Your task to perform on an android device: Open Google Image 0: 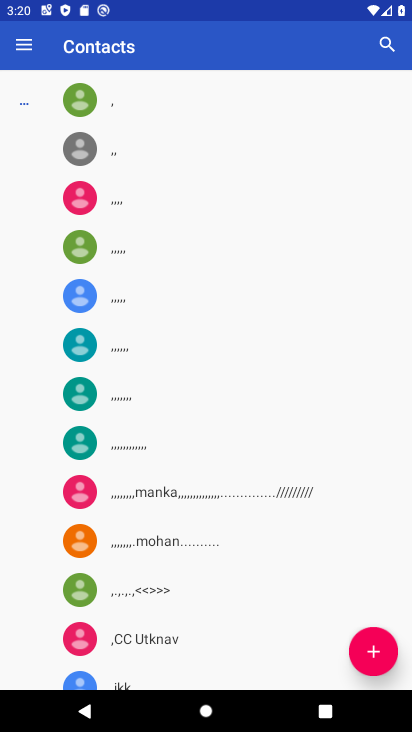
Step 0: press home button
Your task to perform on an android device: Open Google Image 1: 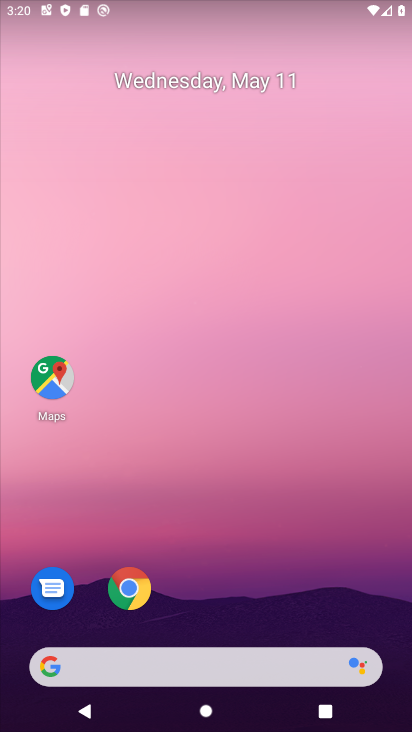
Step 1: drag from (242, 514) to (153, 7)
Your task to perform on an android device: Open Google Image 2: 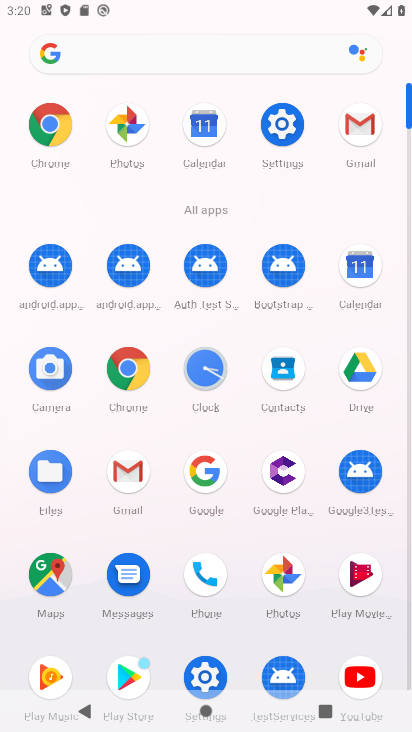
Step 2: click (115, 61)
Your task to perform on an android device: Open Google Image 3: 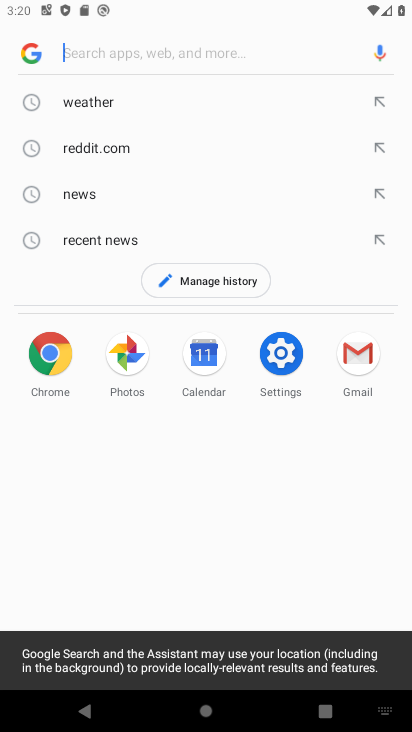
Step 3: click (115, 61)
Your task to perform on an android device: Open Google Image 4: 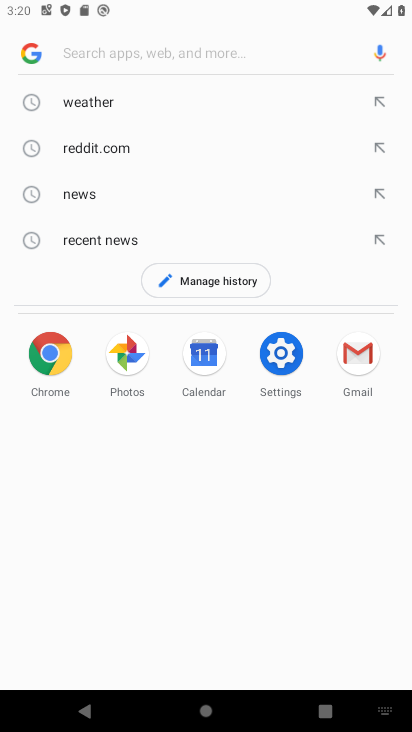
Step 4: click (40, 63)
Your task to perform on an android device: Open Google Image 5: 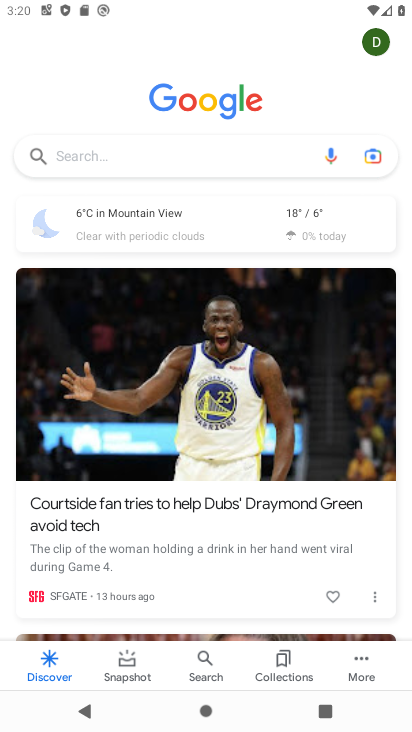
Step 5: task complete